Your task to perform on an android device: check android version Image 0: 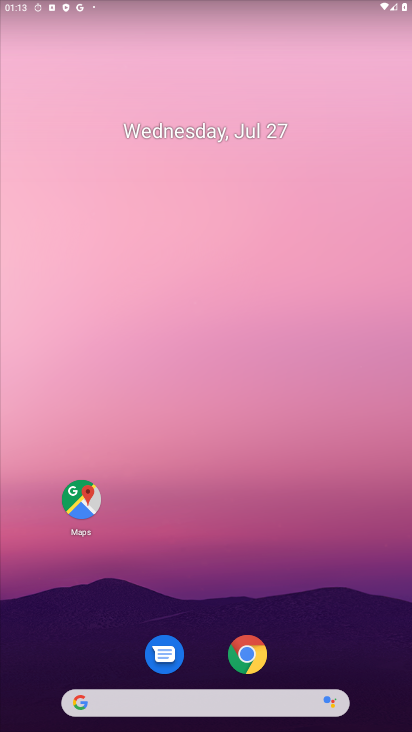
Step 0: drag from (188, 700) to (300, 2)
Your task to perform on an android device: check android version Image 1: 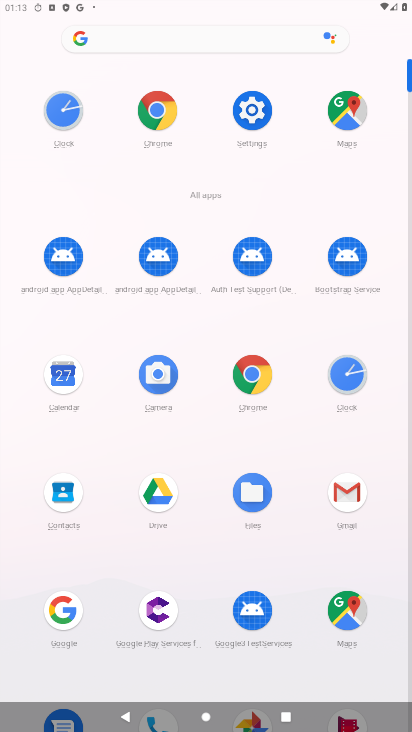
Step 1: click (244, 116)
Your task to perform on an android device: check android version Image 2: 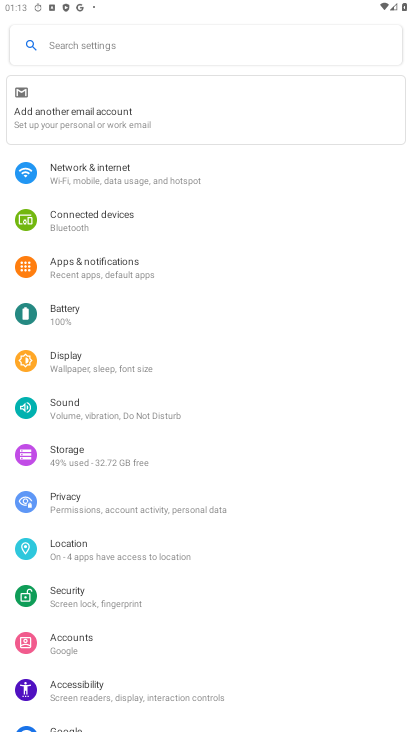
Step 2: drag from (173, 702) to (192, 85)
Your task to perform on an android device: check android version Image 3: 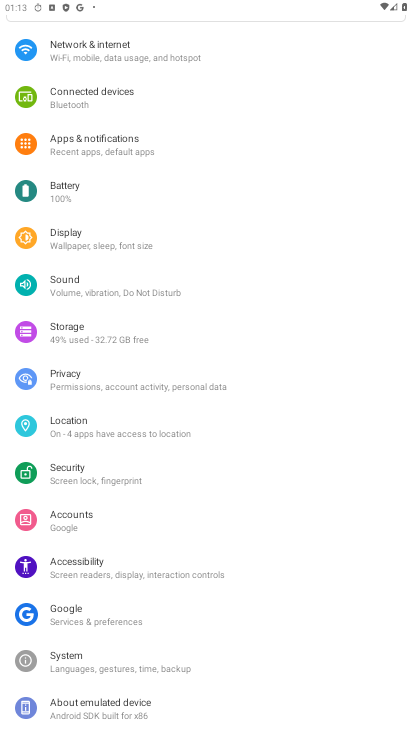
Step 3: click (129, 694)
Your task to perform on an android device: check android version Image 4: 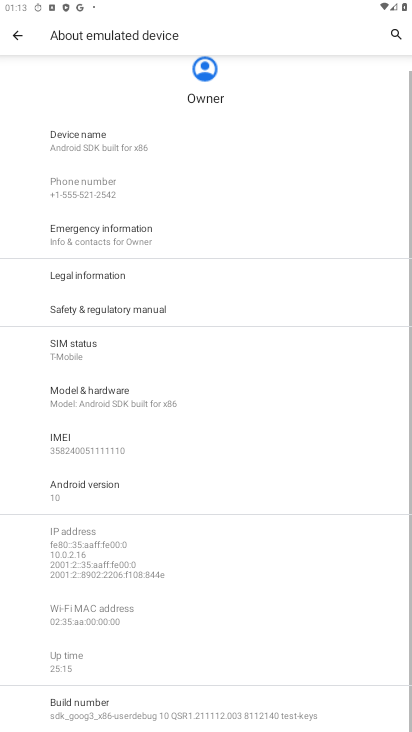
Step 4: click (122, 489)
Your task to perform on an android device: check android version Image 5: 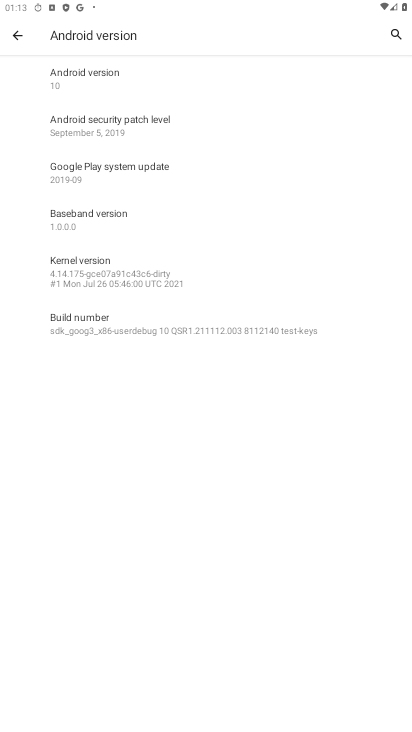
Step 5: task complete